Your task to perform on an android device: change notification settings in the gmail app Image 0: 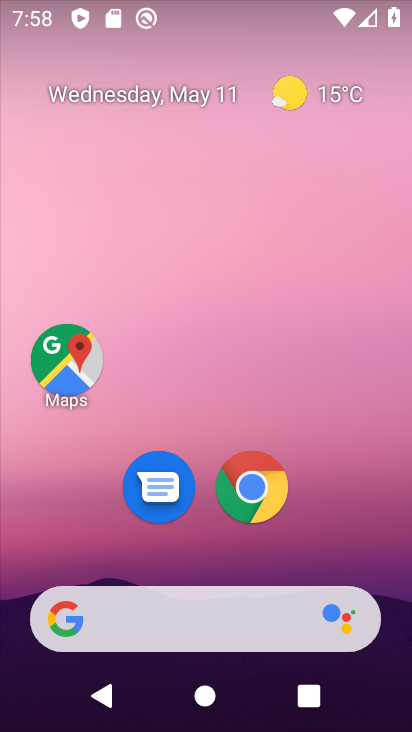
Step 0: click (218, 293)
Your task to perform on an android device: change notification settings in the gmail app Image 1: 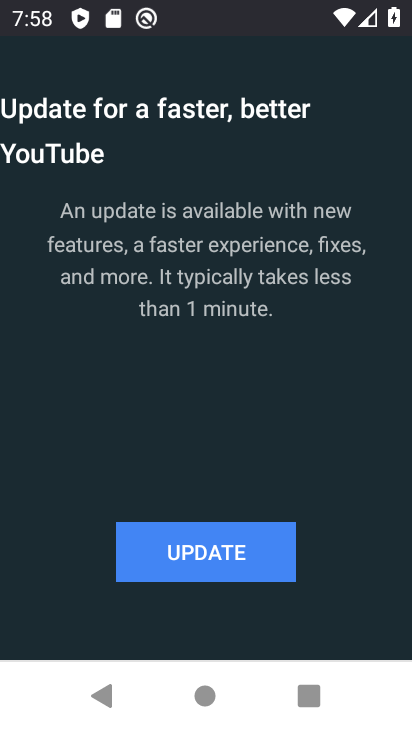
Step 1: press home button
Your task to perform on an android device: change notification settings in the gmail app Image 2: 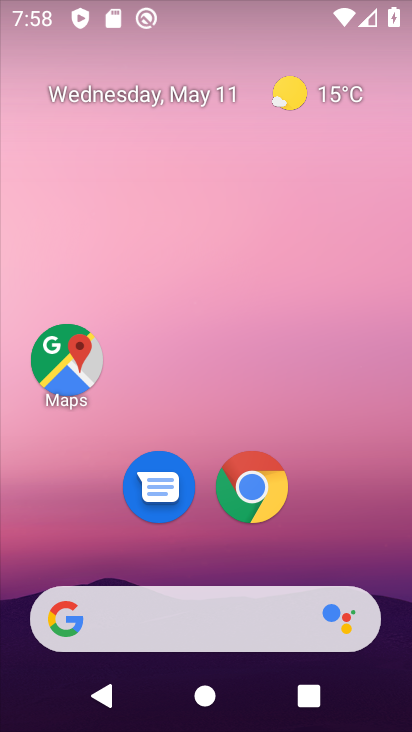
Step 2: drag from (301, 669) to (228, 80)
Your task to perform on an android device: change notification settings in the gmail app Image 3: 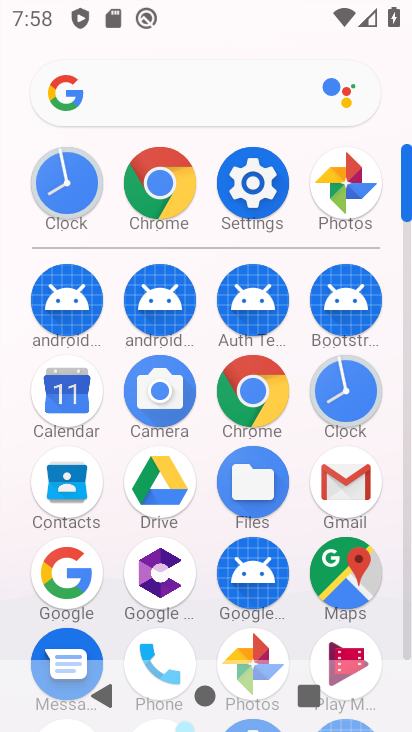
Step 3: click (360, 477)
Your task to perform on an android device: change notification settings in the gmail app Image 4: 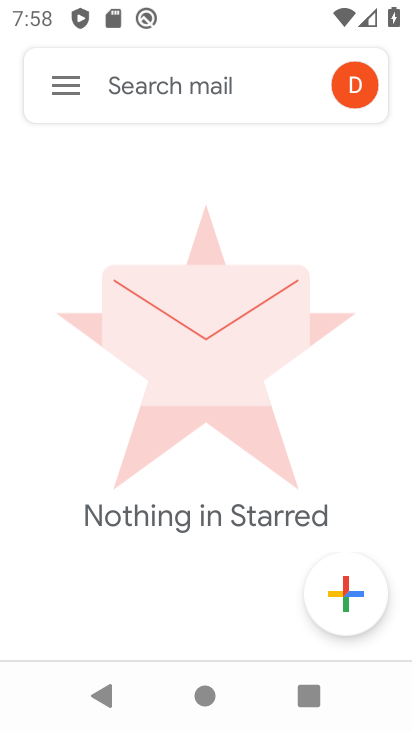
Step 4: click (76, 77)
Your task to perform on an android device: change notification settings in the gmail app Image 5: 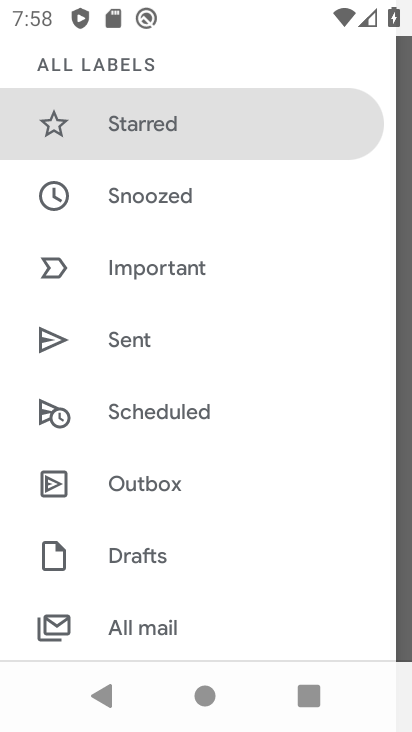
Step 5: drag from (168, 592) to (200, 267)
Your task to perform on an android device: change notification settings in the gmail app Image 6: 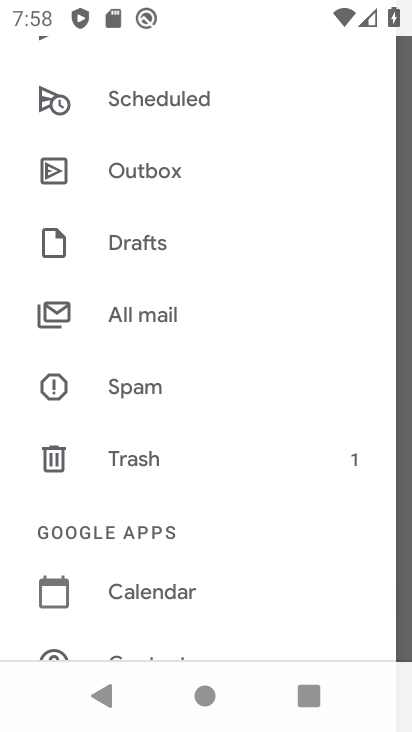
Step 6: drag from (182, 541) to (202, 399)
Your task to perform on an android device: change notification settings in the gmail app Image 7: 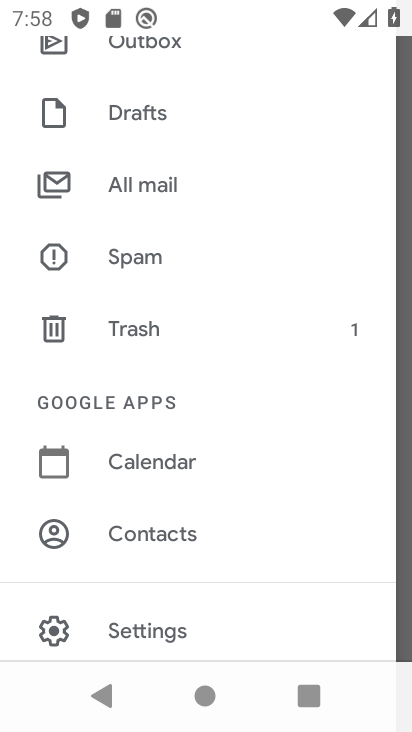
Step 7: click (153, 611)
Your task to perform on an android device: change notification settings in the gmail app Image 8: 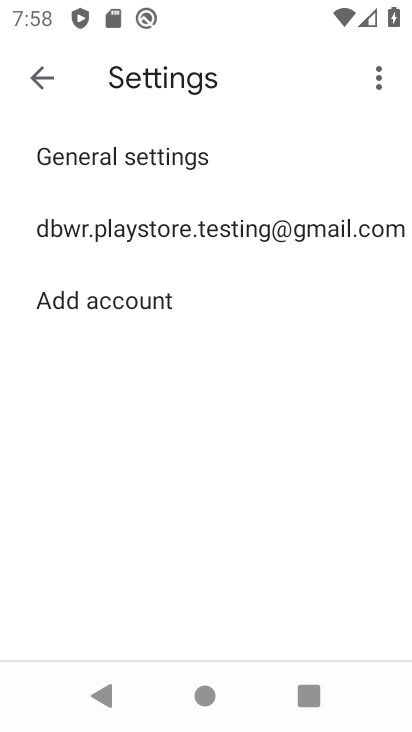
Step 8: click (155, 227)
Your task to perform on an android device: change notification settings in the gmail app Image 9: 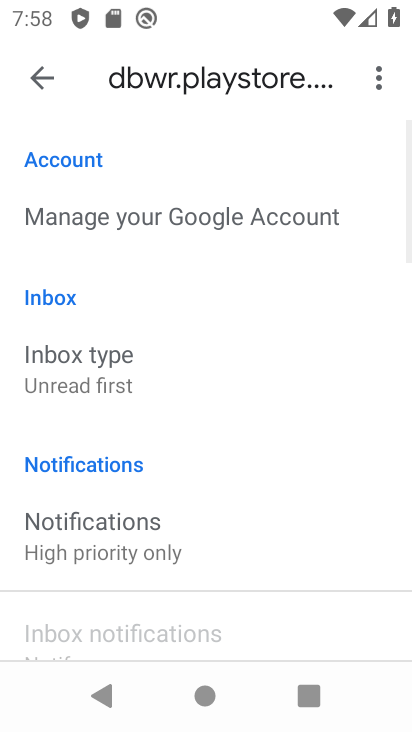
Step 9: click (135, 523)
Your task to perform on an android device: change notification settings in the gmail app Image 10: 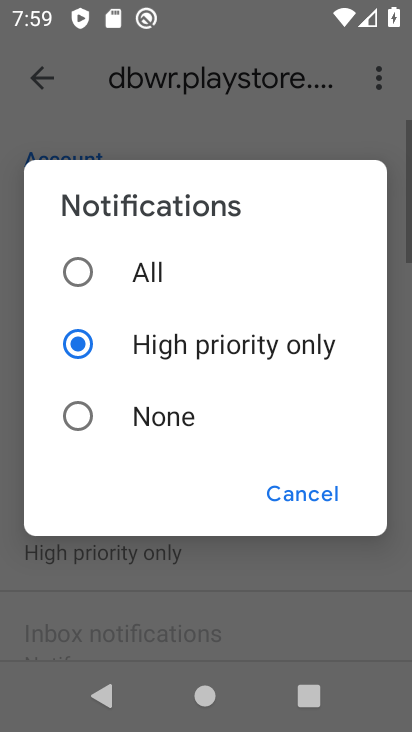
Step 10: click (162, 273)
Your task to perform on an android device: change notification settings in the gmail app Image 11: 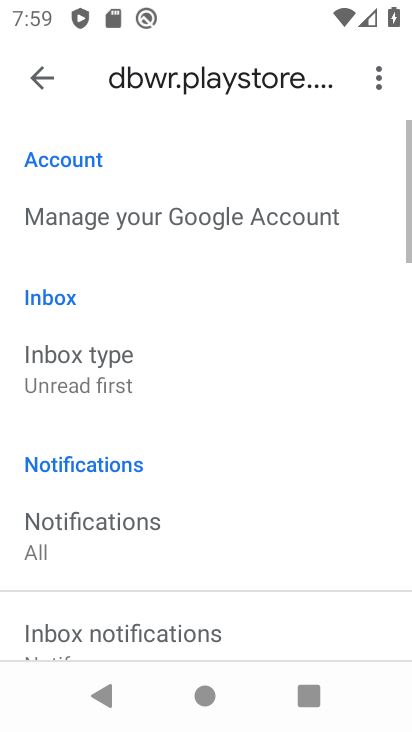
Step 11: task complete